Your task to perform on an android device: Go to sound settings Image 0: 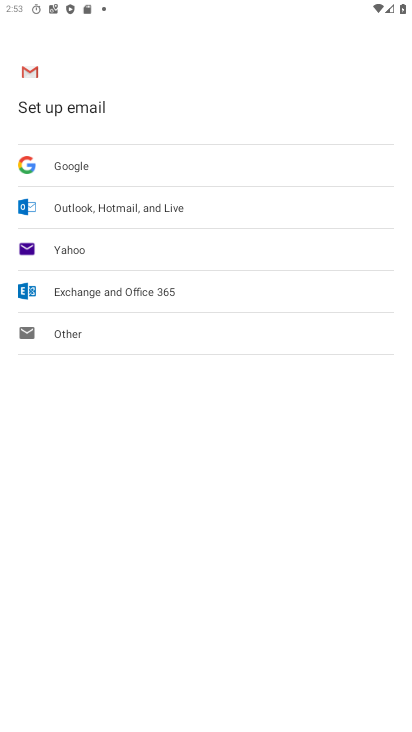
Step 0: press home button
Your task to perform on an android device: Go to sound settings Image 1: 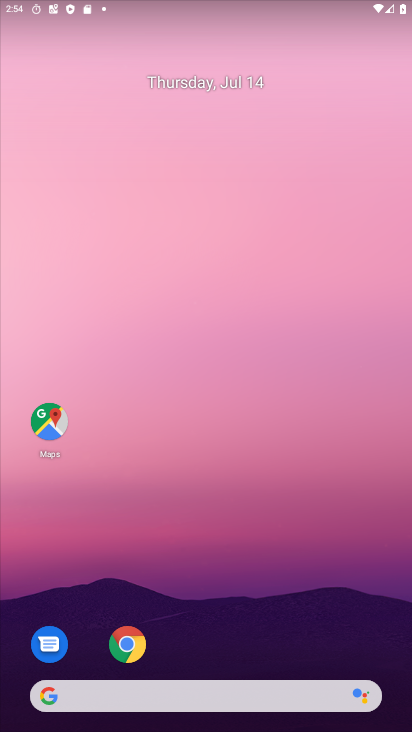
Step 1: drag from (37, 675) to (178, 299)
Your task to perform on an android device: Go to sound settings Image 2: 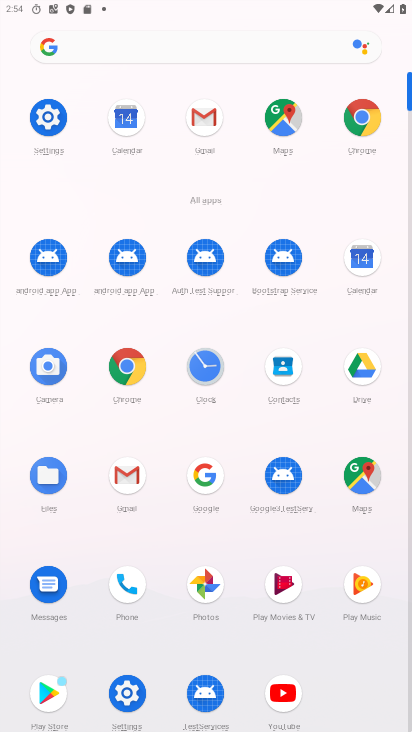
Step 2: click (133, 679)
Your task to perform on an android device: Go to sound settings Image 3: 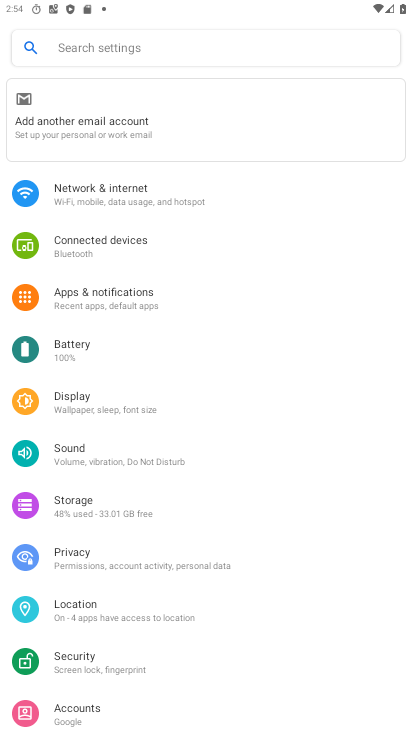
Step 3: click (101, 458)
Your task to perform on an android device: Go to sound settings Image 4: 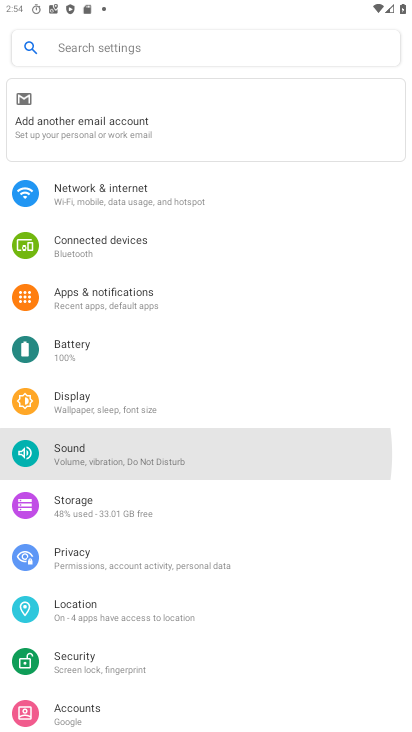
Step 4: click (77, 444)
Your task to perform on an android device: Go to sound settings Image 5: 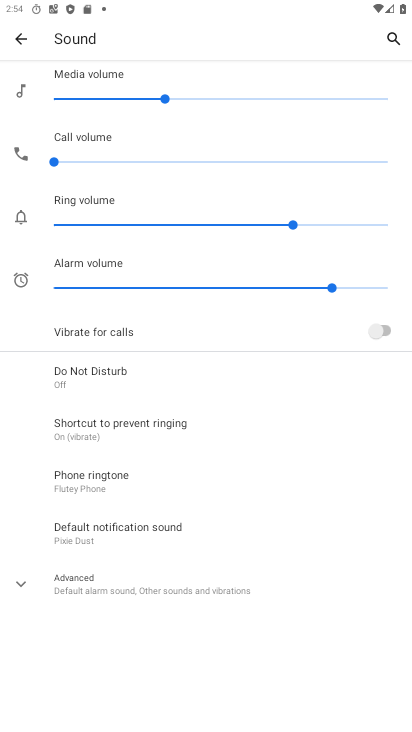
Step 5: task complete